Your task to perform on an android device: Go to Maps Image 0: 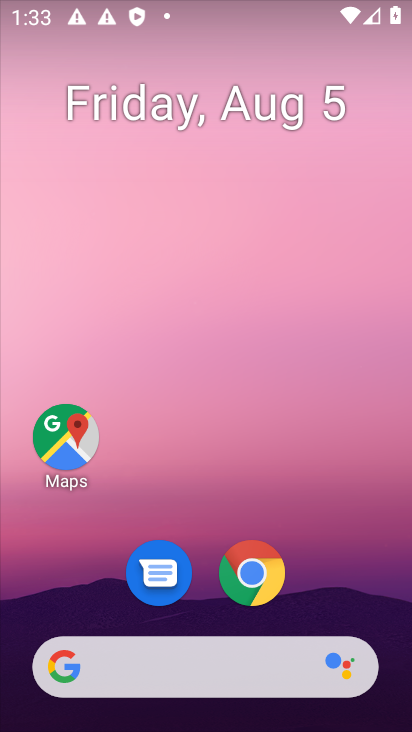
Step 0: drag from (344, 545) to (361, 112)
Your task to perform on an android device: Go to Maps Image 1: 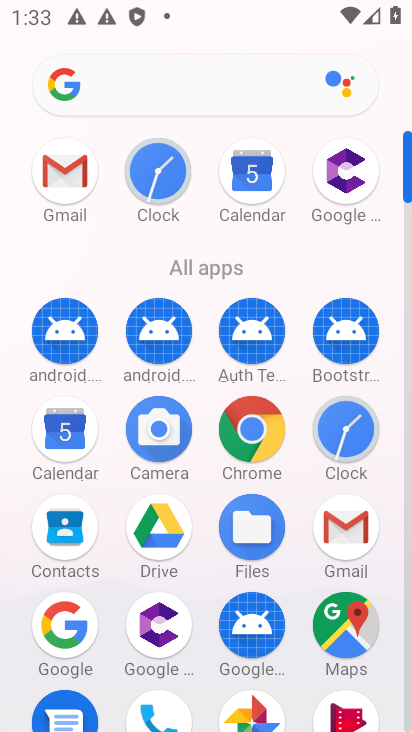
Step 1: click (342, 620)
Your task to perform on an android device: Go to Maps Image 2: 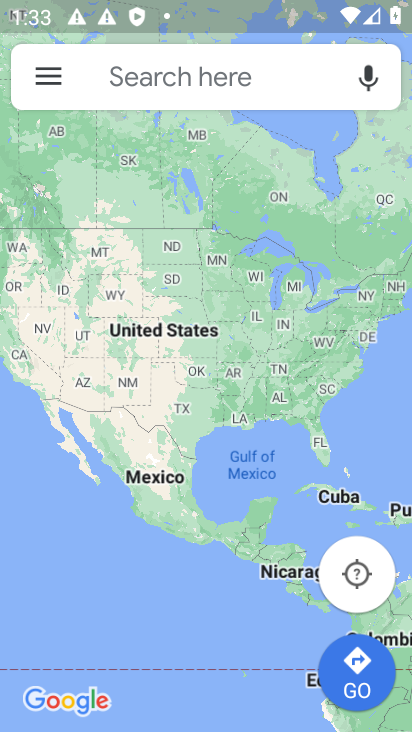
Step 2: task complete